Your task to perform on an android device: Open calendar and show me the fourth week of next month Image 0: 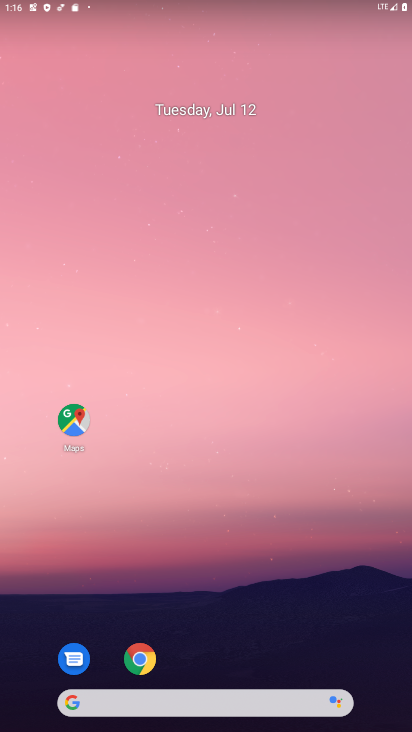
Step 0: drag from (193, 516) to (193, 166)
Your task to perform on an android device: Open calendar and show me the fourth week of next month Image 1: 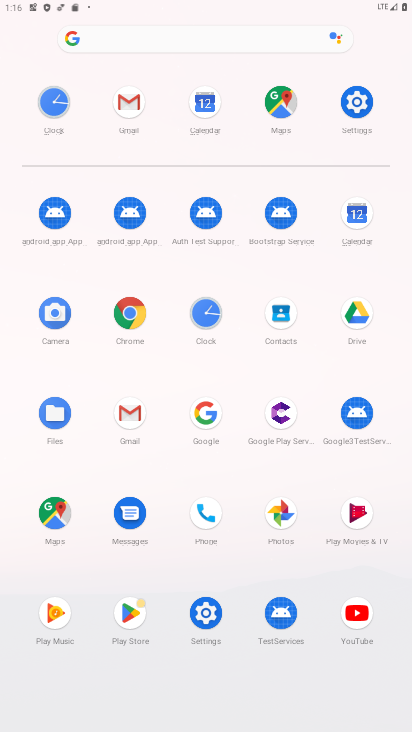
Step 1: click (357, 205)
Your task to perform on an android device: Open calendar and show me the fourth week of next month Image 2: 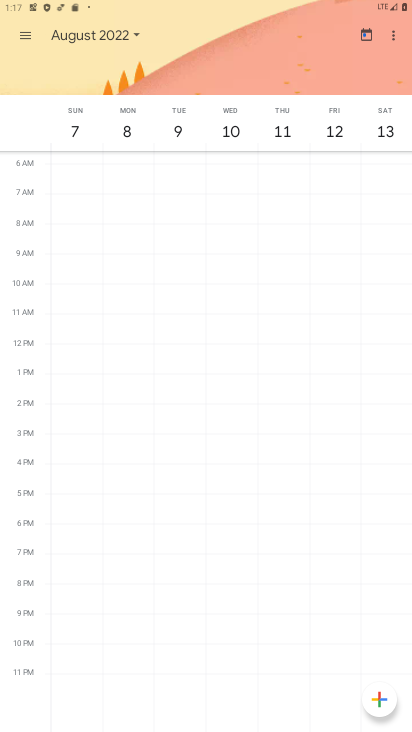
Step 2: click (137, 33)
Your task to perform on an android device: Open calendar and show me the fourth week of next month Image 3: 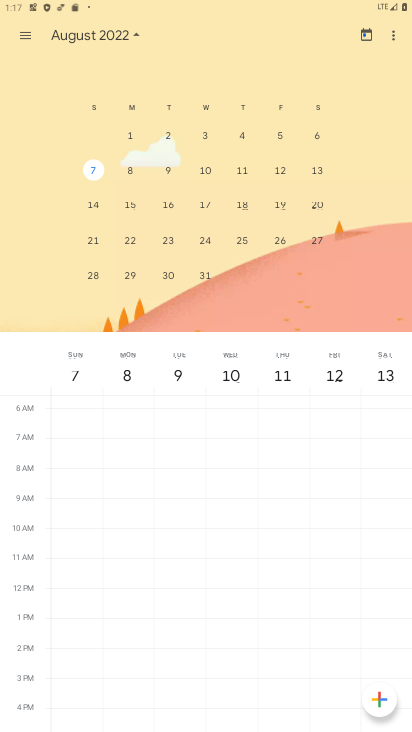
Step 3: click (127, 239)
Your task to perform on an android device: Open calendar and show me the fourth week of next month Image 4: 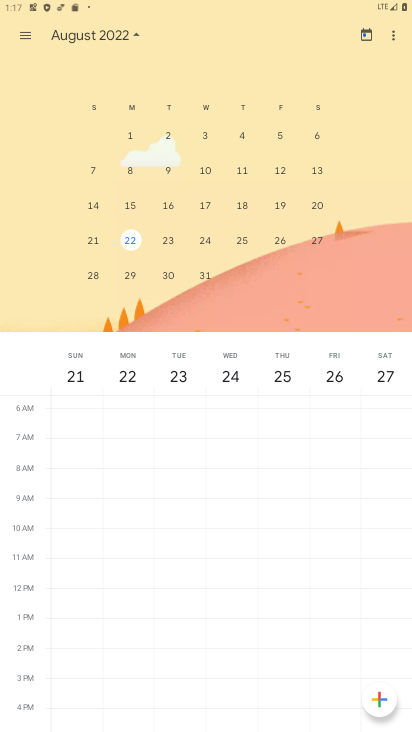
Step 4: click (127, 239)
Your task to perform on an android device: Open calendar and show me the fourth week of next month Image 5: 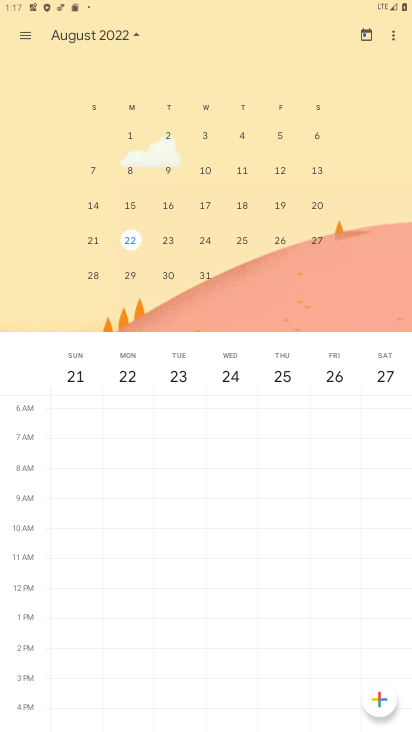
Step 5: click (126, 372)
Your task to perform on an android device: Open calendar and show me the fourth week of next month Image 6: 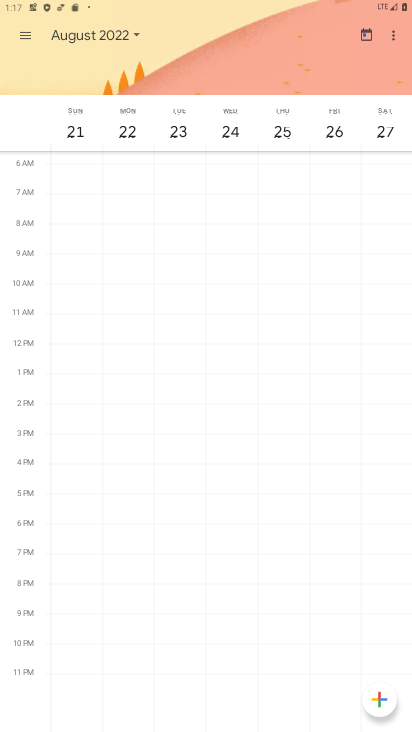
Step 6: task complete